Your task to perform on an android device: open wifi settings Image 0: 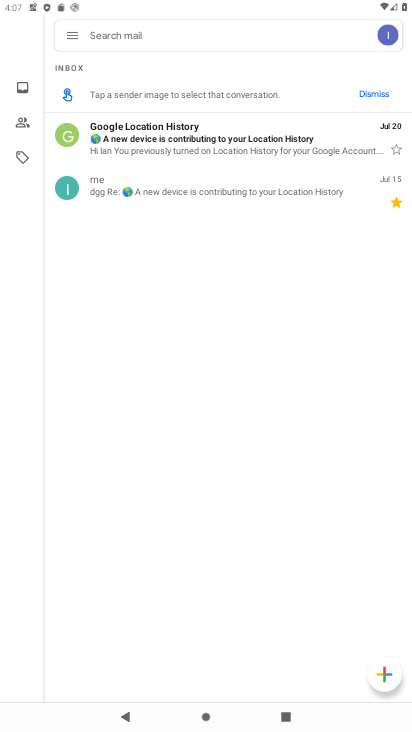
Step 0: press home button
Your task to perform on an android device: open wifi settings Image 1: 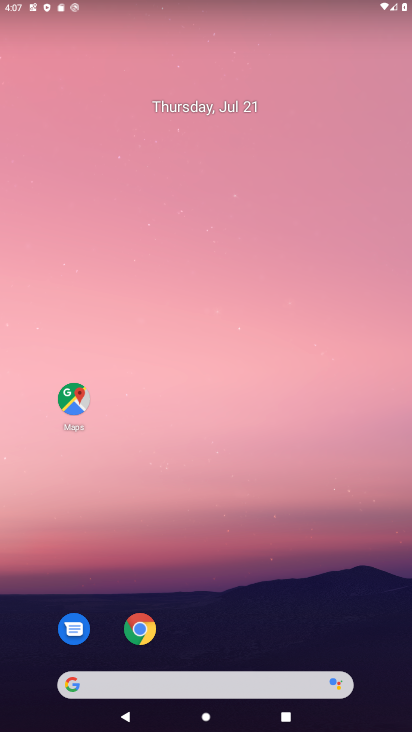
Step 1: drag from (319, 504) to (247, 35)
Your task to perform on an android device: open wifi settings Image 2: 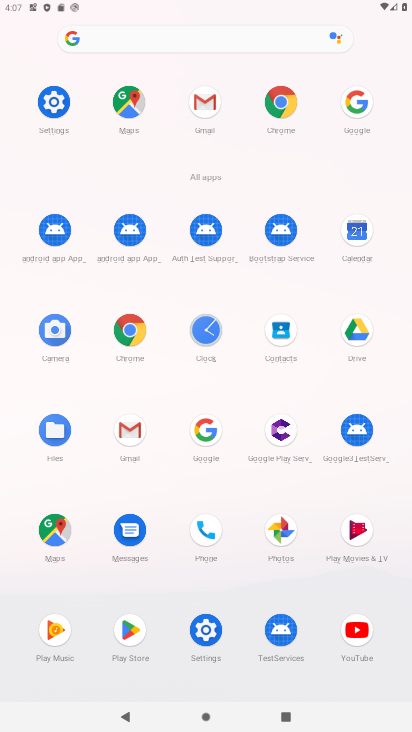
Step 2: click (49, 95)
Your task to perform on an android device: open wifi settings Image 3: 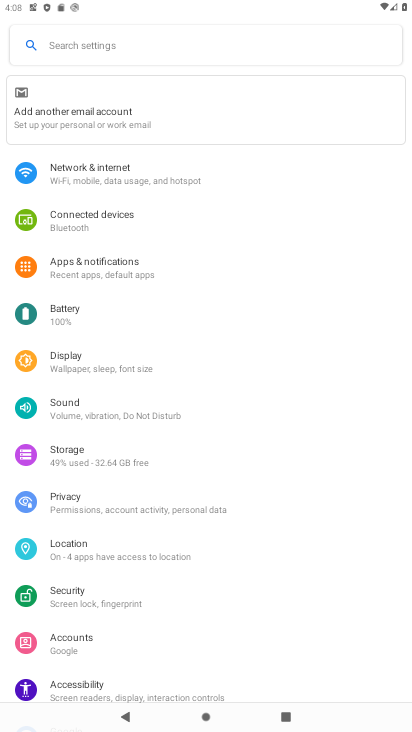
Step 3: click (97, 171)
Your task to perform on an android device: open wifi settings Image 4: 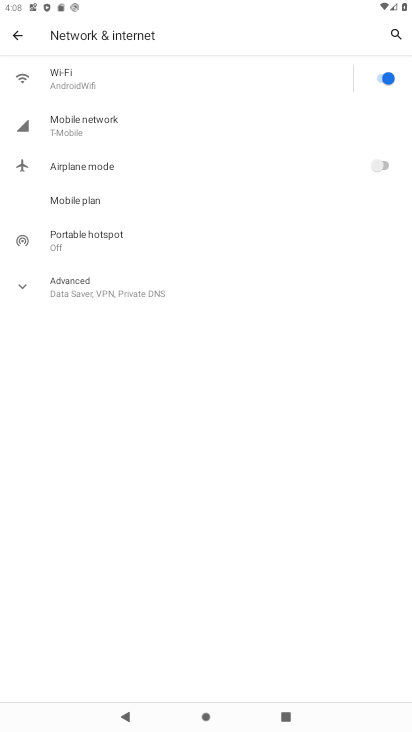
Step 4: click (91, 70)
Your task to perform on an android device: open wifi settings Image 5: 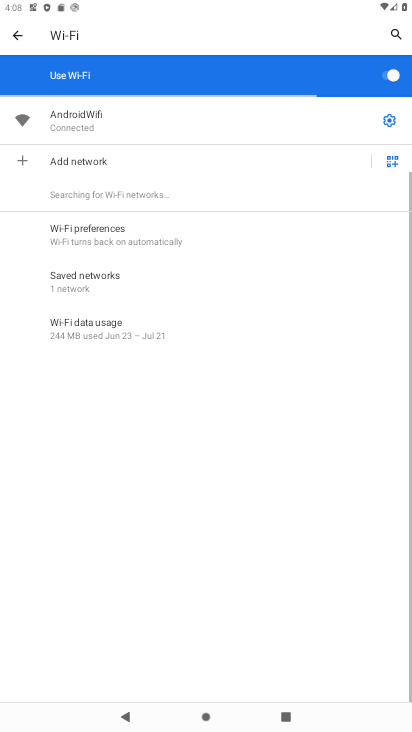
Step 5: task complete